Your task to perform on an android device: change notification settings in the gmail app Image 0: 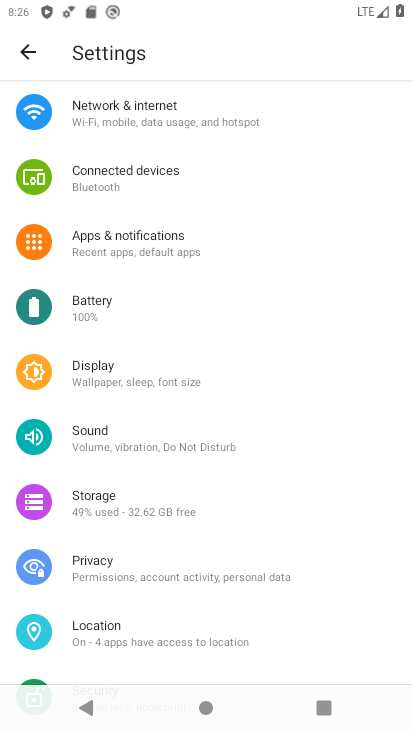
Step 0: click (125, 238)
Your task to perform on an android device: change notification settings in the gmail app Image 1: 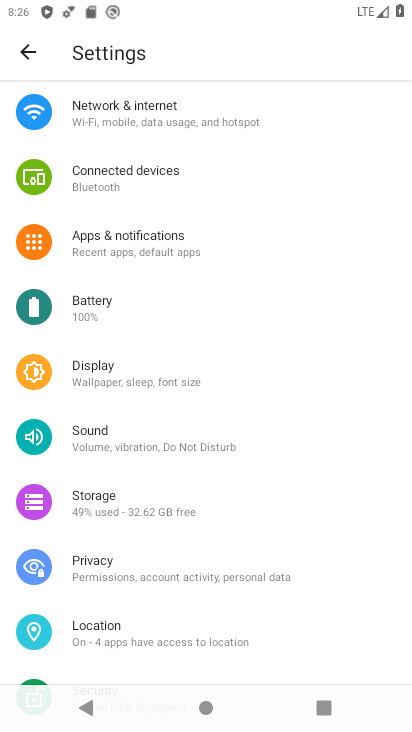
Step 1: click (125, 238)
Your task to perform on an android device: change notification settings in the gmail app Image 2: 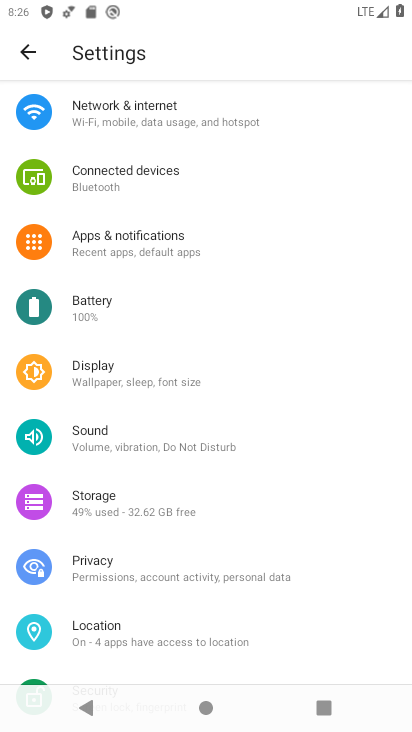
Step 2: click (127, 241)
Your task to perform on an android device: change notification settings in the gmail app Image 3: 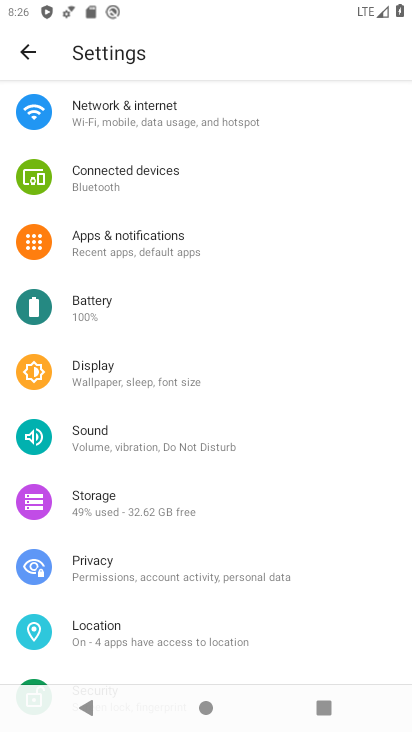
Step 3: click (127, 241)
Your task to perform on an android device: change notification settings in the gmail app Image 4: 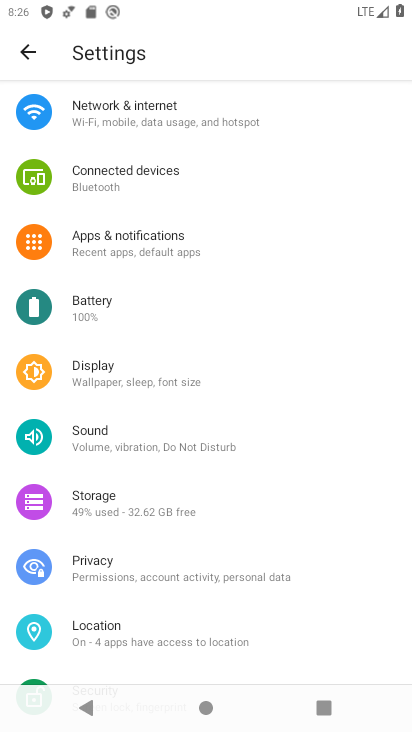
Step 4: click (126, 240)
Your task to perform on an android device: change notification settings in the gmail app Image 5: 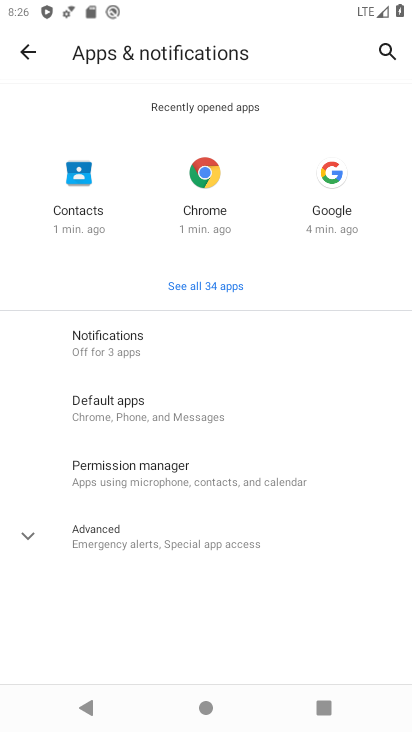
Step 5: click (102, 345)
Your task to perform on an android device: change notification settings in the gmail app Image 6: 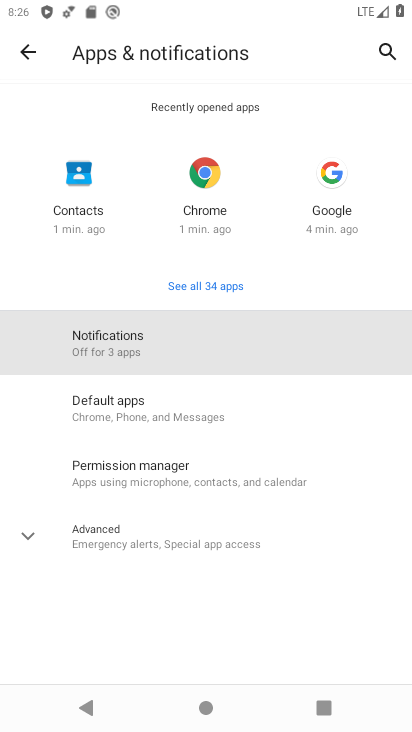
Step 6: click (102, 344)
Your task to perform on an android device: change notification settings in the gmail app Image 7: 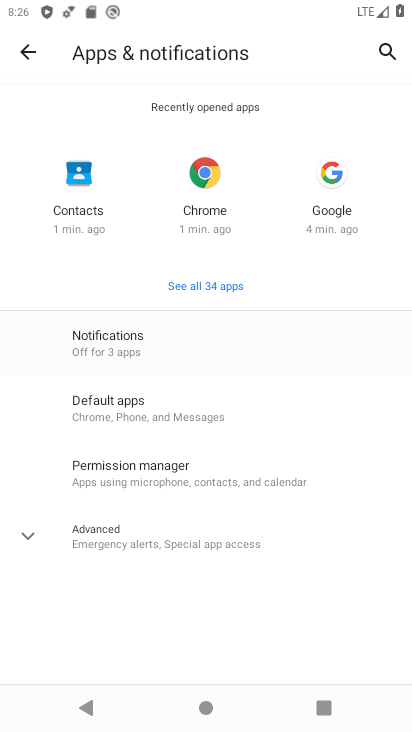
Step 7: click (102, 344)
Your task to perform on an android device: change notification settings in the gmail app Image 8: 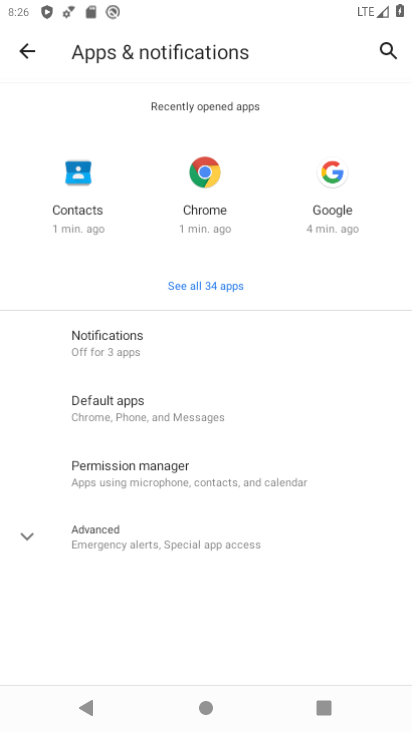
Step 8: click (102, 344)
Your task to perform on an android device: change notification settings in the gmail app Image 9: 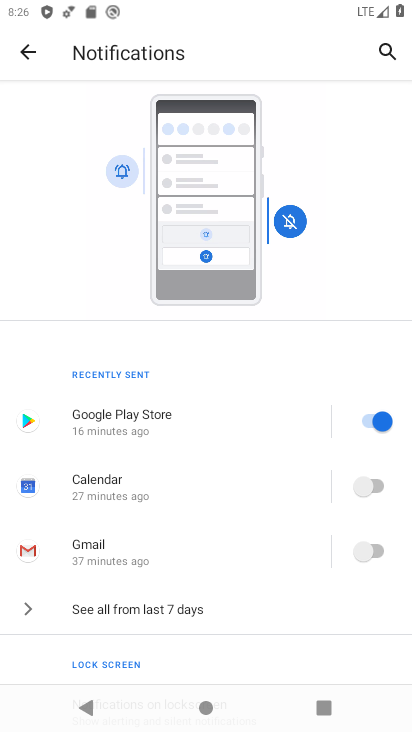
Step 9: drag from (172, 540) to (164, 191)
Your task to perform on an android device: change notification settings in the gmail app Image 10: 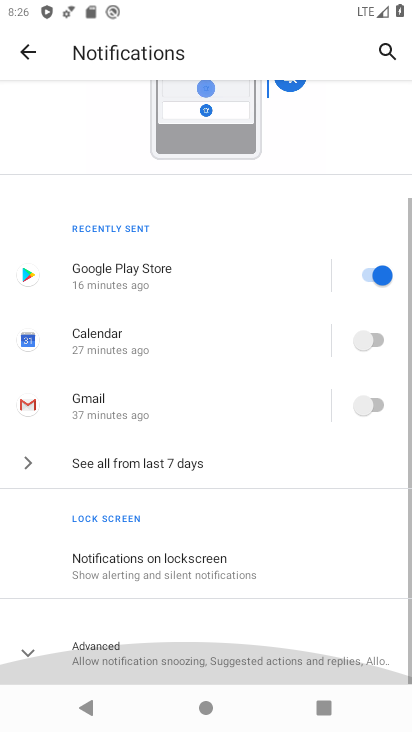
Step 10: drag from (162, 533) to (154, 152)
Your task to perform on an android device: change notification settings in the gmail app Image 11: 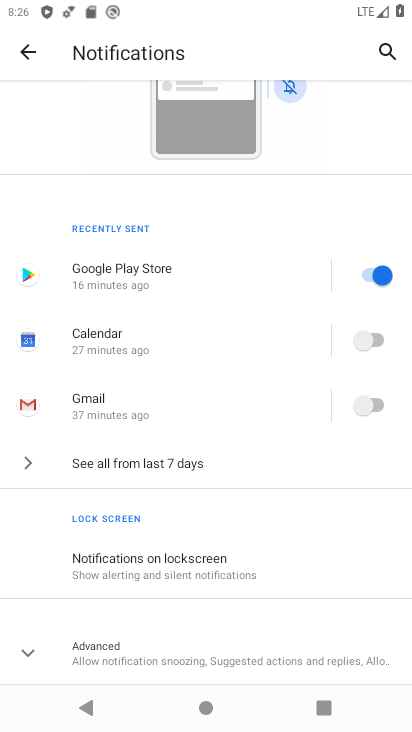
Step 11: click (387, 273)
Your task to perform on an android device: change notification settings in the gmail app Image 12: 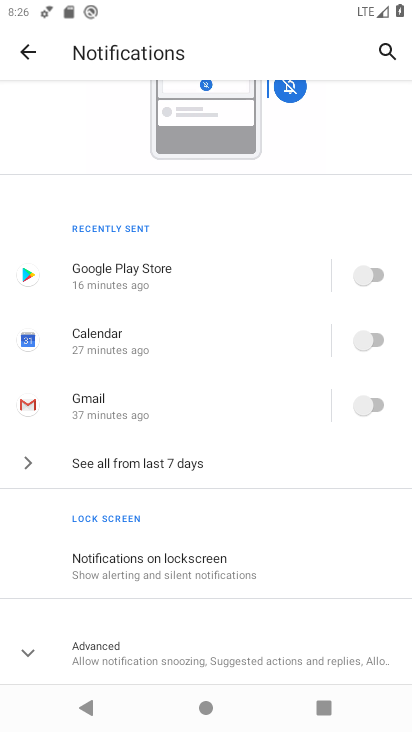
Step 12: click (365, 338)
Your task to perform on an android device: change notification settings in the gmail app Image 13: 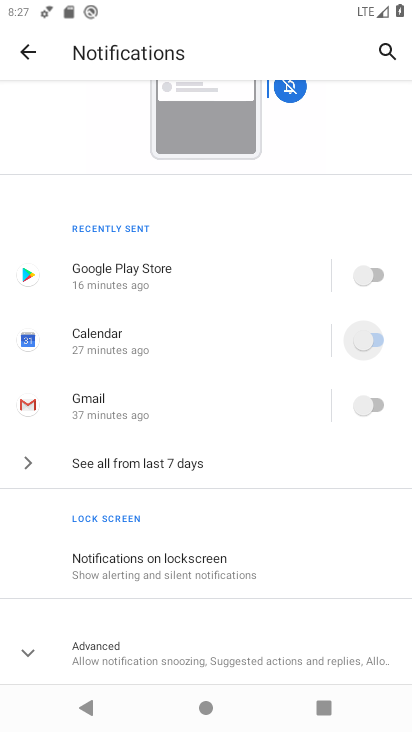
Step 13: click (367, 397)
Your task to perform on an android device: change notification settings in the gmail app Image 14: 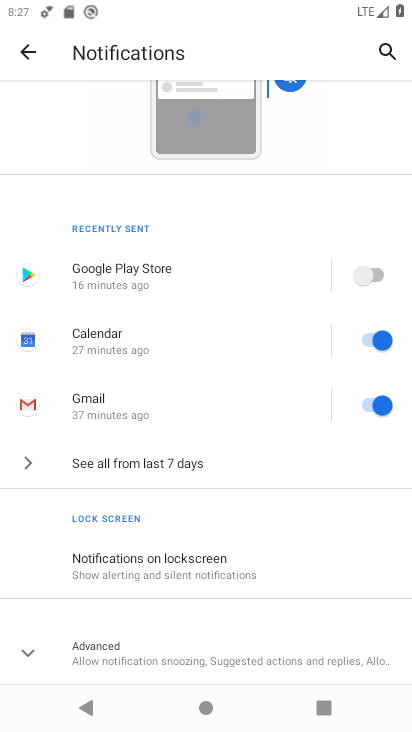
Step 14: task complete